Your task to perform on an android device: allow cookies in the chrome app Image 0: 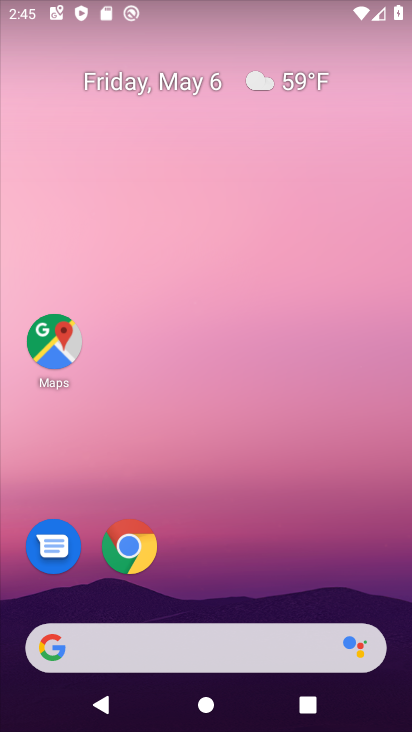
Step 0: click (144, 550)
Your task to perform on an android device: allow cookies in the chrome app Image 1: 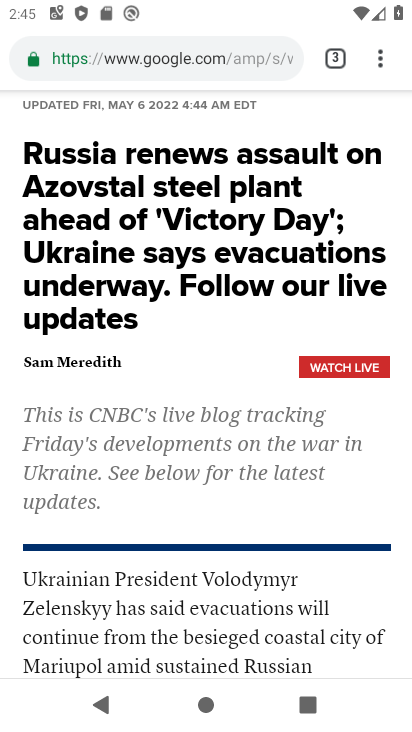
Step 1: click (378, 56)
Your task to perform on an android device: allow cookies in the chrome app Image 2: 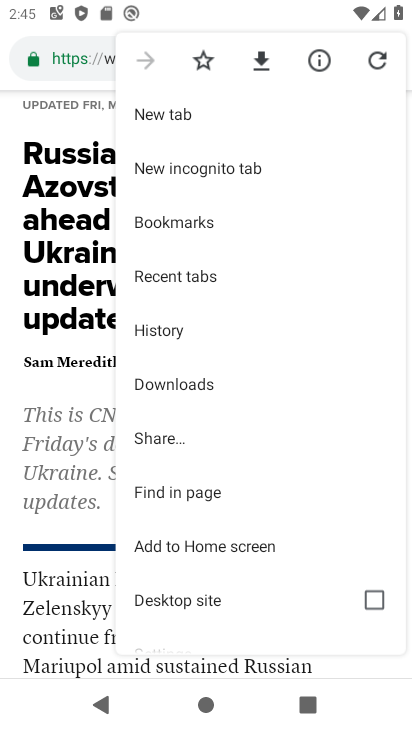
Step 2: drag from (224, 606) to (248, 303)
Your task to perform on an android device: allow cookies in the chrome app Image 3: 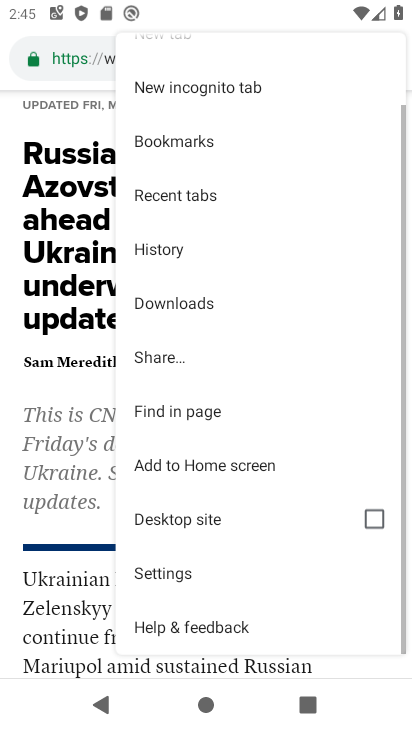
Step 3: click (199, 571)
Your task to perform on an android device: allow cookies in the chrome app Image 4: 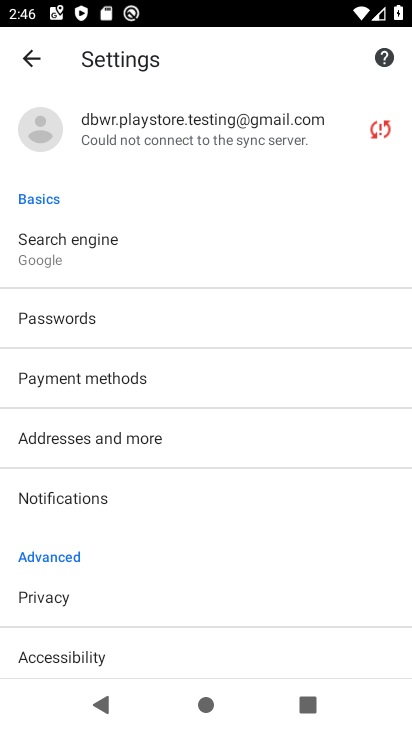
Step 4: drag from (186, 559) to (178, 393)
Your task to perform on an android device: allow cookies in the chrome app Image 5: 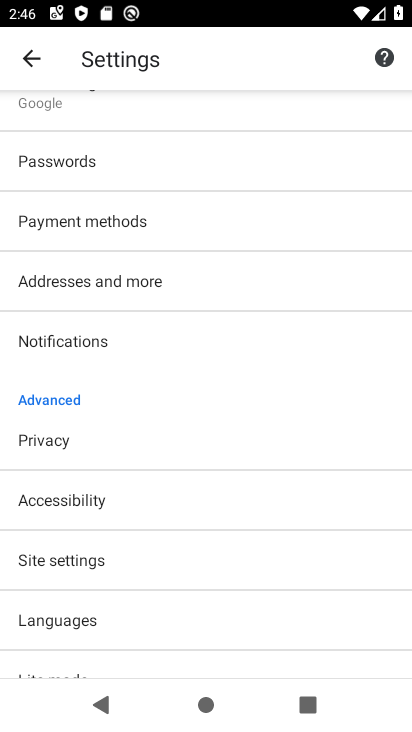
Step 5: click (106, 560)
Your task to perform on an android device: allow cookies in the chrome app Image 6: 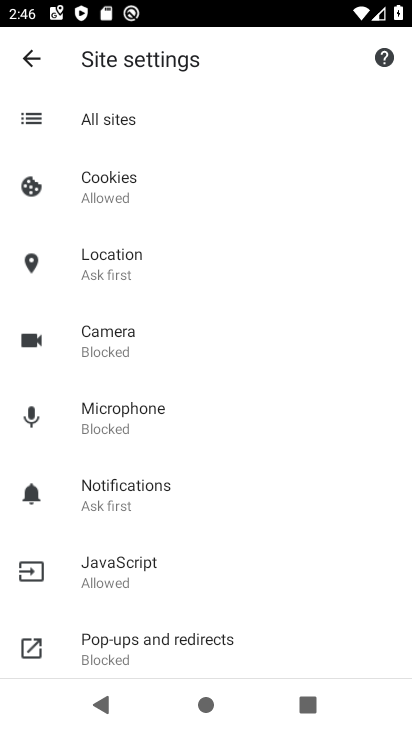
Step 6: click (135, 190)
Your task to perform on an android device: allow cookies in the chrome app Image 7: 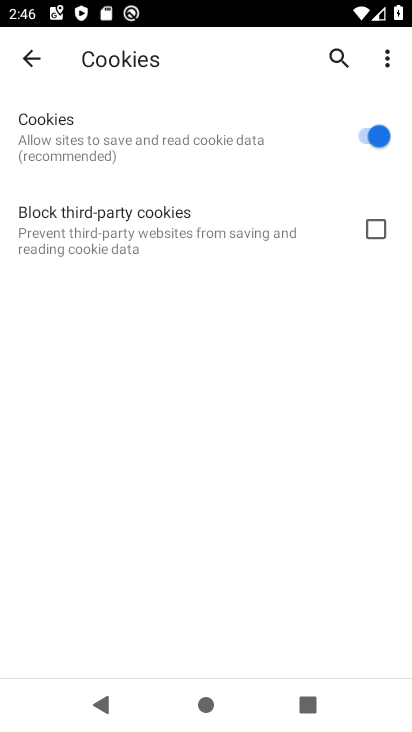
Step 7: task complete